Your task to perform on an android device: search for starred emails in the gmail app Image 0: 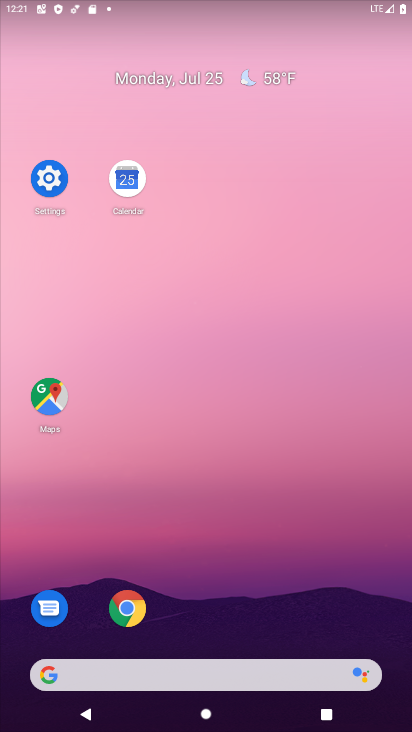
Step 0: drag from (224, 613) to (297, 145)
Your task to perform on an android device: search for starred emails in the gmail app Image 1: 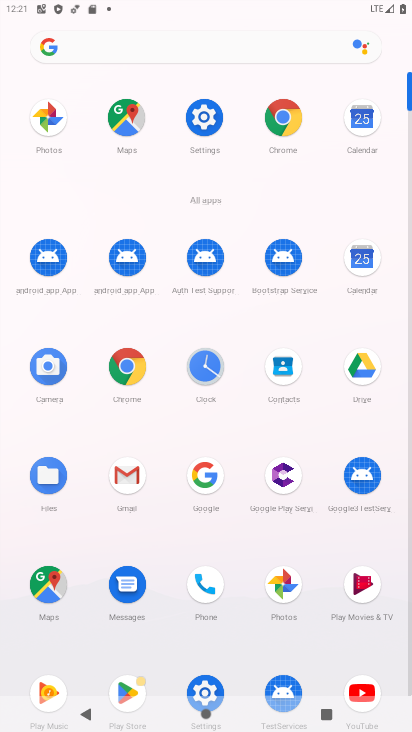
Step 1: drag from (129, 469) to (215, 210)
Your task to perform on an android device: search for starred emails in the gmail app Image 2: 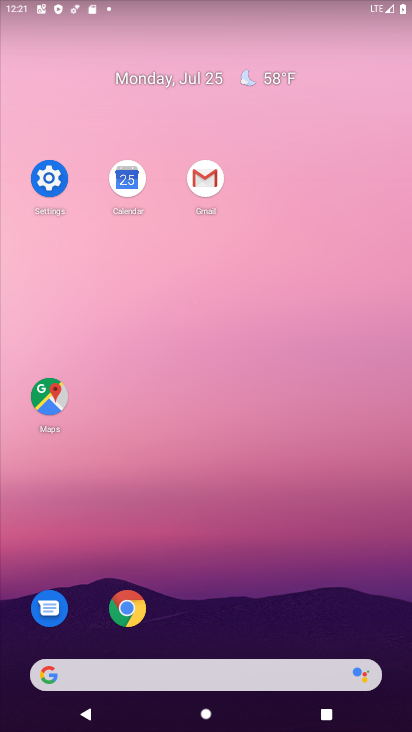
Step 2: click (214, 180)
Your task to perform on an android device: search for starred emails in the gmail app Image 3: 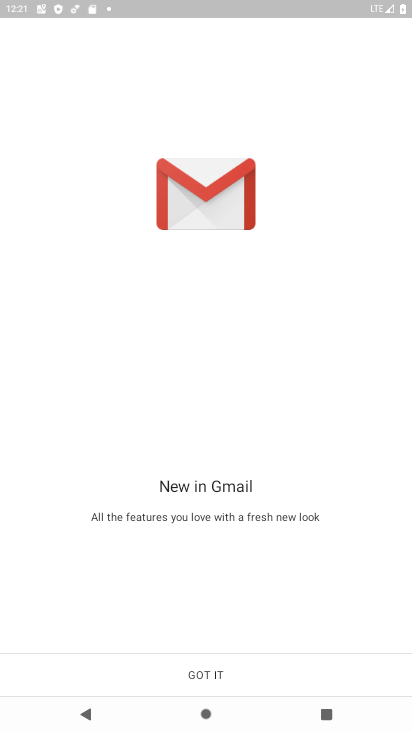
Step 3: click (296, 681)
Your task to perform on an android device: search for starred emails in the gmail app Image 4: 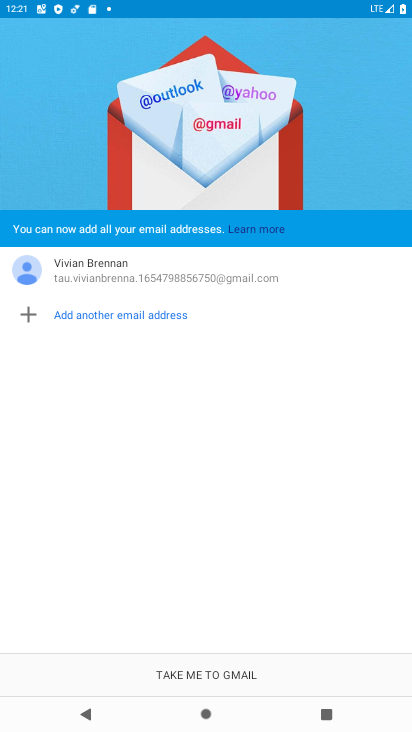
Step 4: click (207, 672)
Your task to perform on an android device: search for starred emails in the gmail app Image 5: 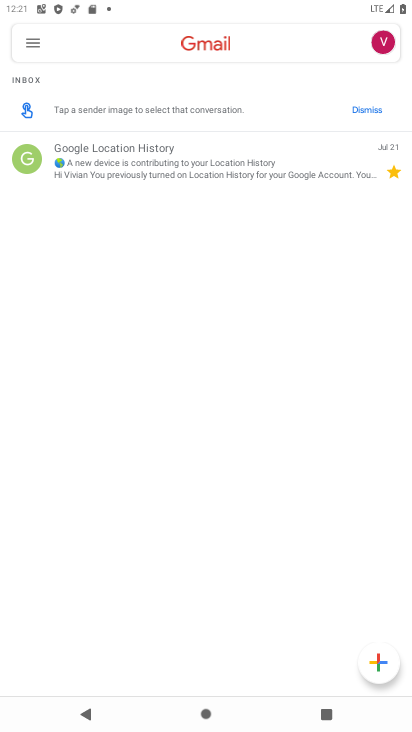
Step 5: click (39, 33)
Your task to perform on an android device: search for starred emails in the gmail app Image 6: 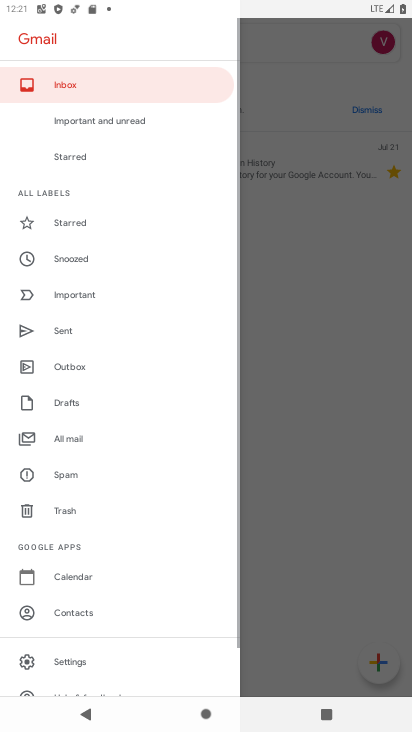
Step 6: click (123, 220)
Your task to perform on an android device: search for starred emails in the gmail app Image 7: 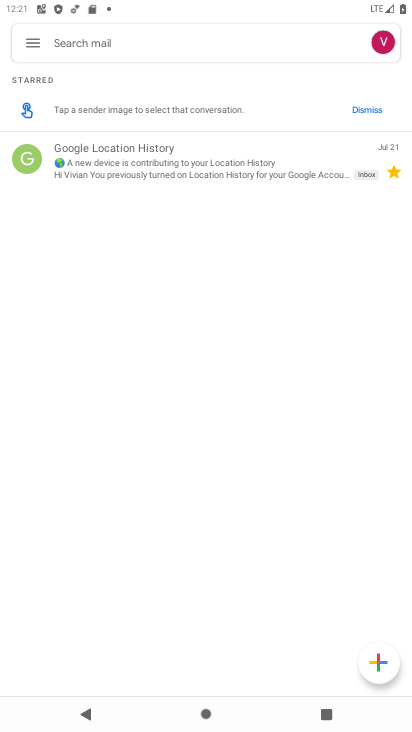
Step 7: task complete